Your task to perform on an android device: Is it going to rain today? Image 0: 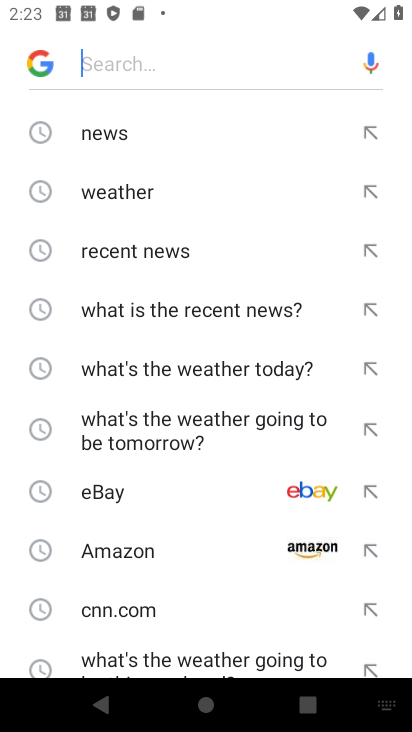
Step 0: drag from (194, 557) to (257, 279)
Your task to perform on an android device: Is it going to rain today? Image 1: 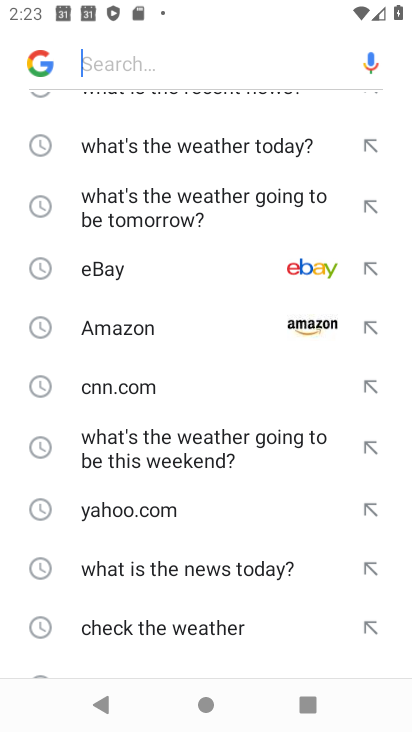
Step 1: drag from (235, 520) to (232, 211)
Your task to perform on an android device: Is it going to rain today? Image 2: 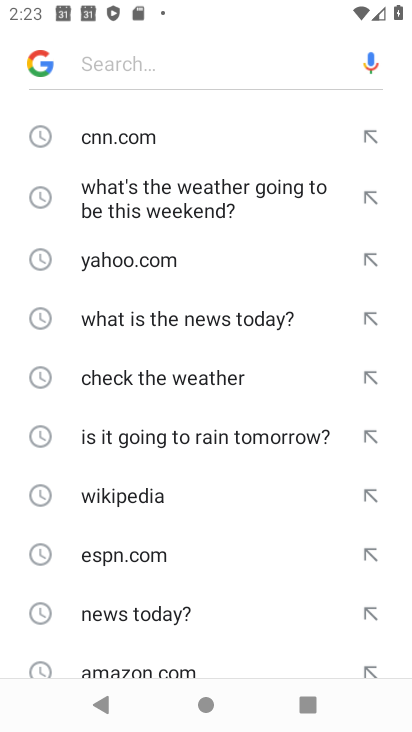
Step 2: drag from (179, 523) to (196, 226)
Your task to perform on an android device: Is it going to rain today? Image 3: 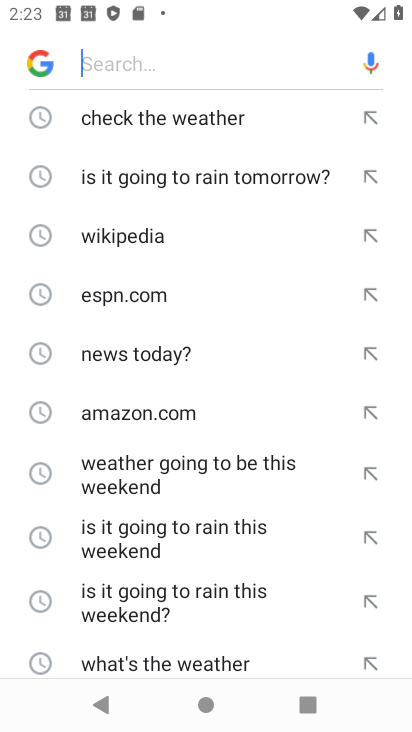
Step 3: drag from (209, 555) to (238, 240)
Your task to perform on an android device: Is it going to rain today? Image 4: 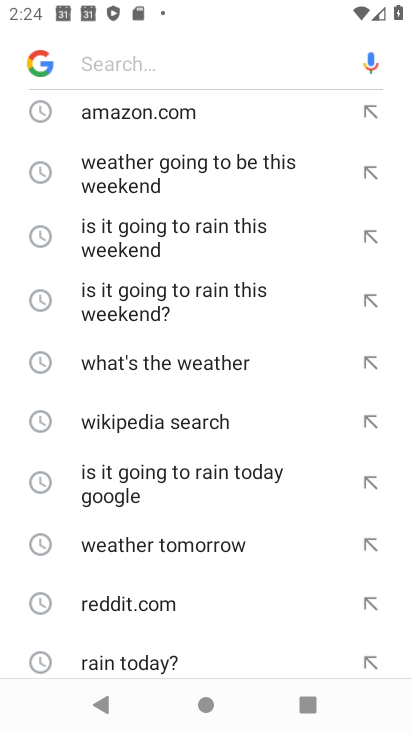
Step 4: drag from (184, 570) to (197, 206)
Your task to perform on an android device: Is it going to rain today? Image 5: 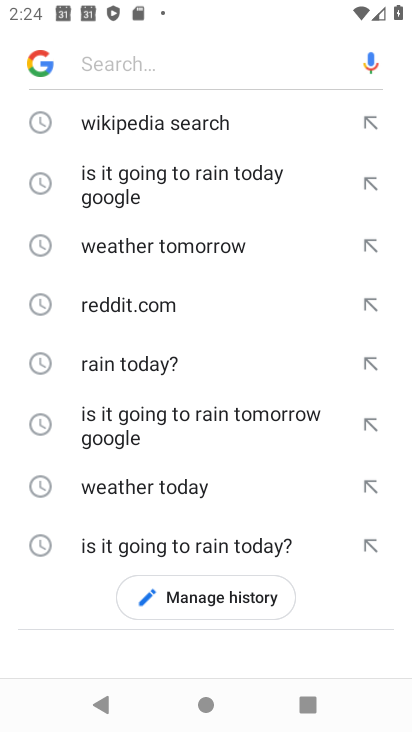
Step 5: click (114, 383)
Your task to perform on an android device: Is it going to rain today? Image 6: 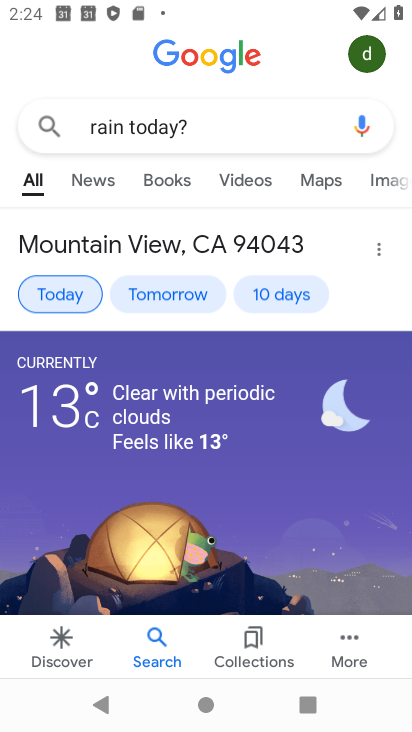
Step 6: task complete